Your task to perform on an android device: toggle wifi Image 0: 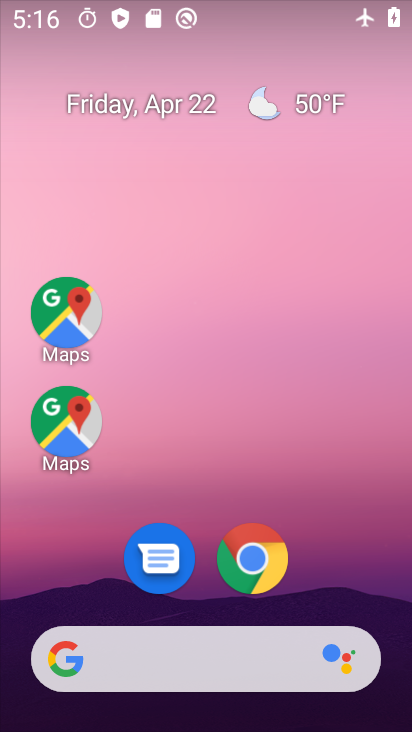
Step 0: drag from (265, 354) to (247, 148)
Your task to perform on an android device: toggle wifi Image 1: 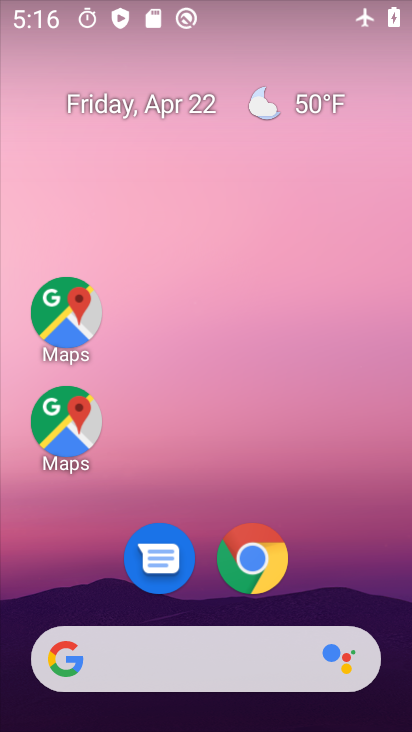
Step 1: drag from (315, 559) to (291, 143)
Your task to perform on an android device: toggle wifi Image 2: 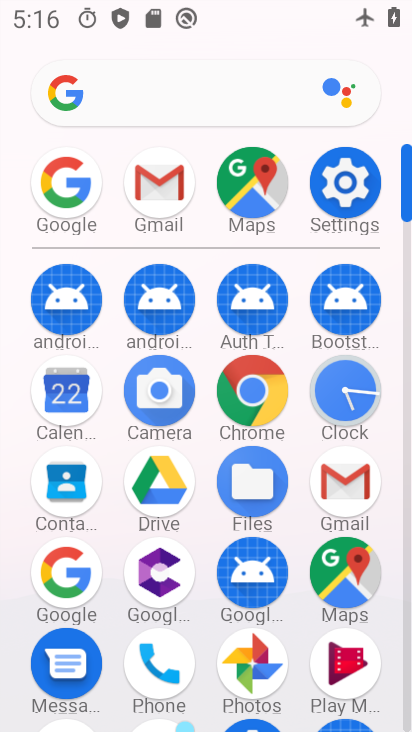
Step 2: click (345, 194)
Your task to perform on an android device: toggle wifi Image 3: 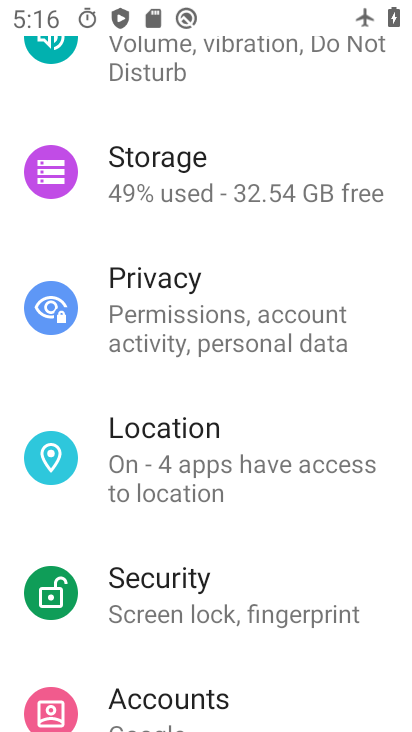
Step 3: drag from (275, 140) to (265, 533)
Your task to perform on an android device: toggle wifi Image 4: 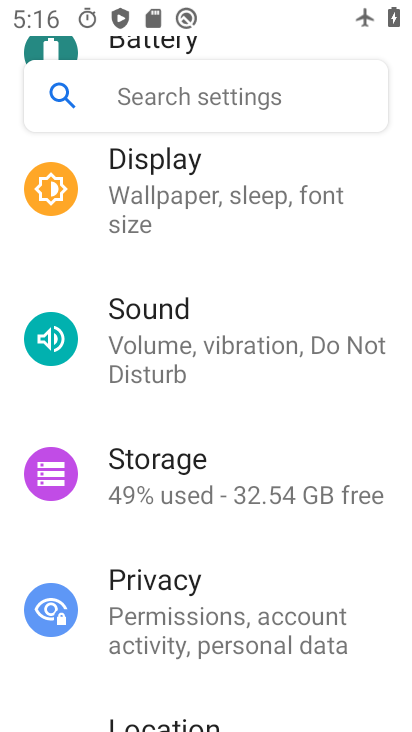
Step 4: drag from (278, 283) to (280, 605)
Your task to perform on an android device: toggle wifi Image 5: 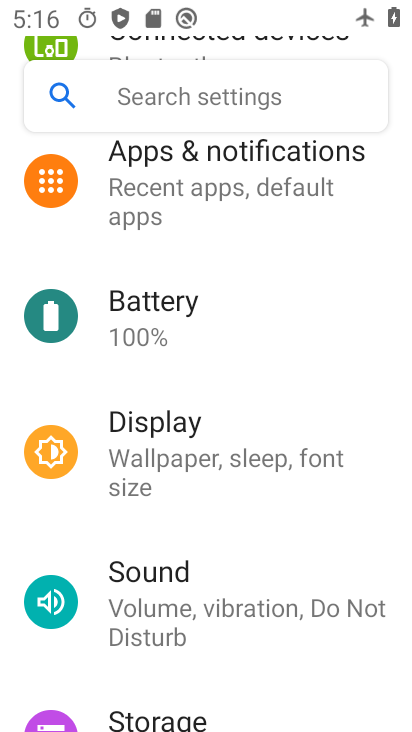
Step 5: drag from (267, 322) to (273, 677)
Your task to perform on an android device: toggle wifi Image 6: 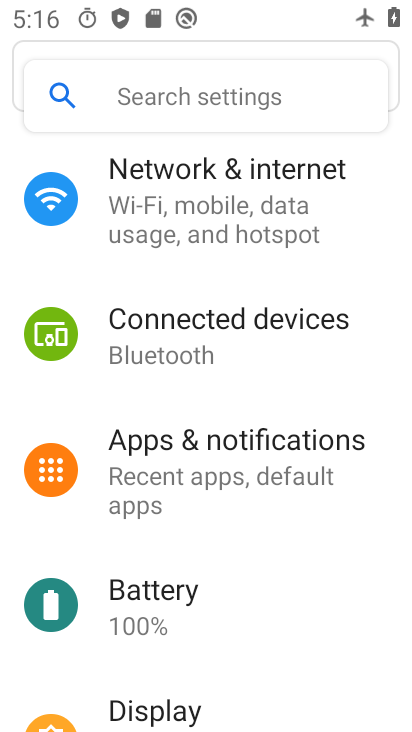
Step 6: click (165, 226)
Your task to perform on an android device: toggle wifi Image 7: 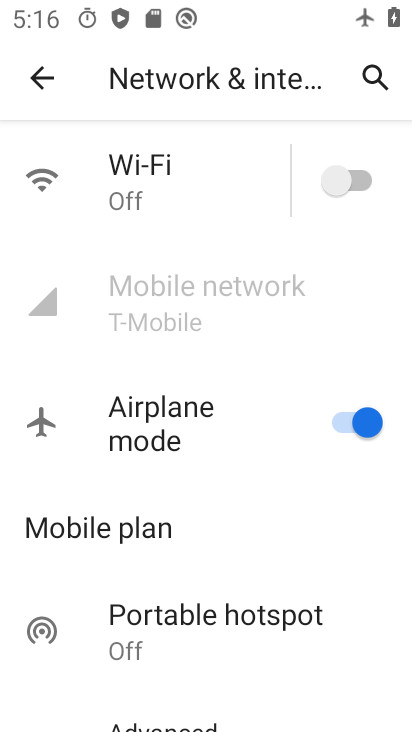
Step 7: task complete